Your task to perform on an android device: turn on priority inbox in the gmail app Image 0: 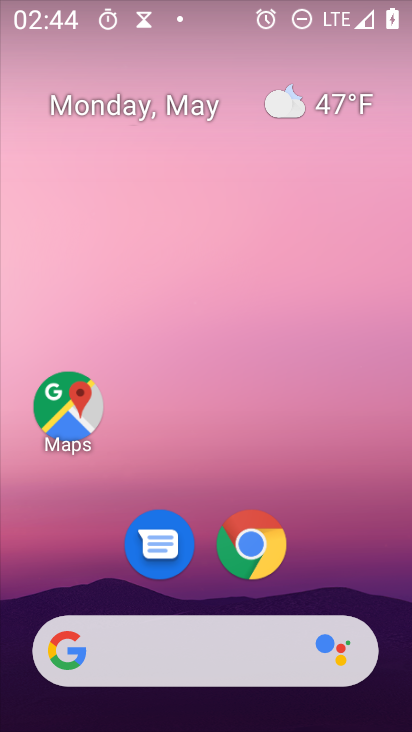
Step 0: drag from (298, 625) to (258, 103)
Your task to perform on an android device: turn on priority inbox in the gmail app Image 1: 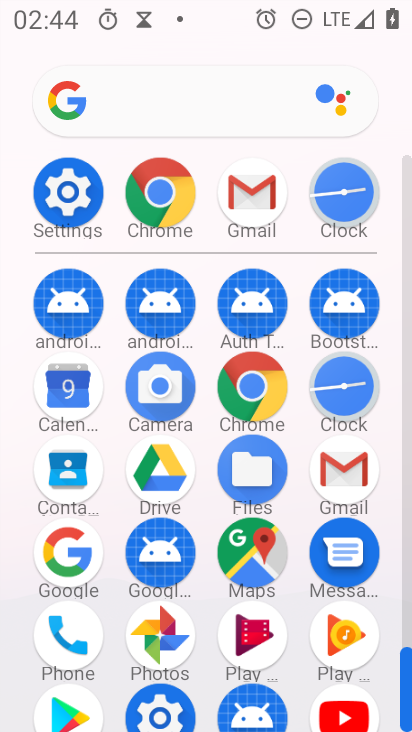
Step 1: click (359, 462)
Your task to perform on an android device: turn on priority inbox in the gmail app Image 2: 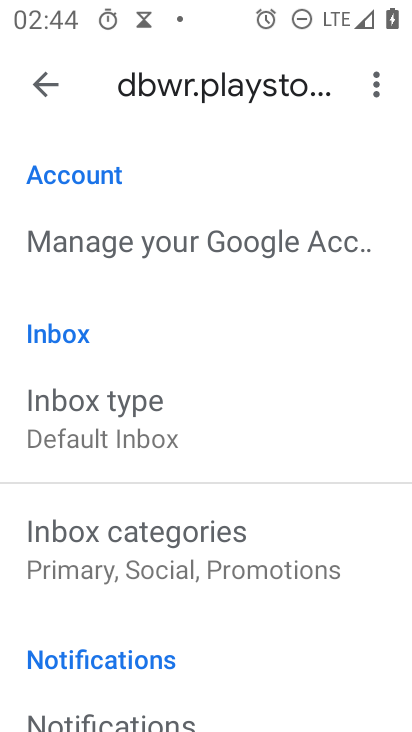
Step 2: click (146, 451)
Your task to perform on an android device: turn on priority inbox in the gmail app Image 3: 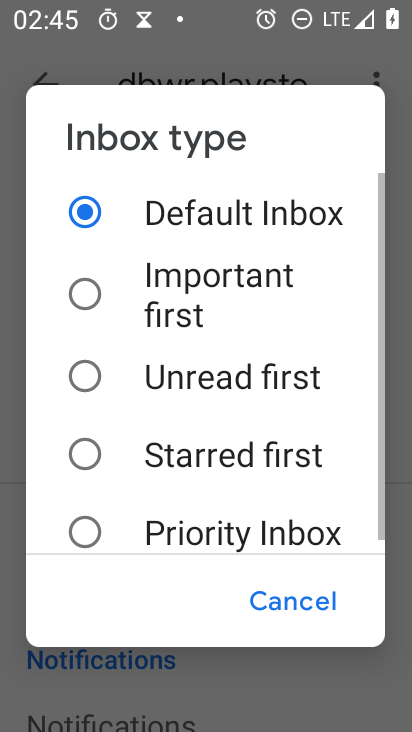
Step 3: click (78, 525)
Your task to perform on an android device: turn on priority inbox in the gmail app Image 4: 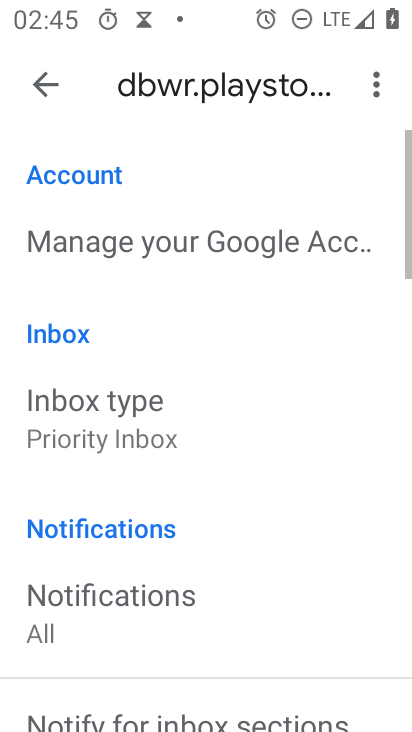
Step 4: task complete